Your task to perform on an android device: open app "Indeed Job Search" Image 0: 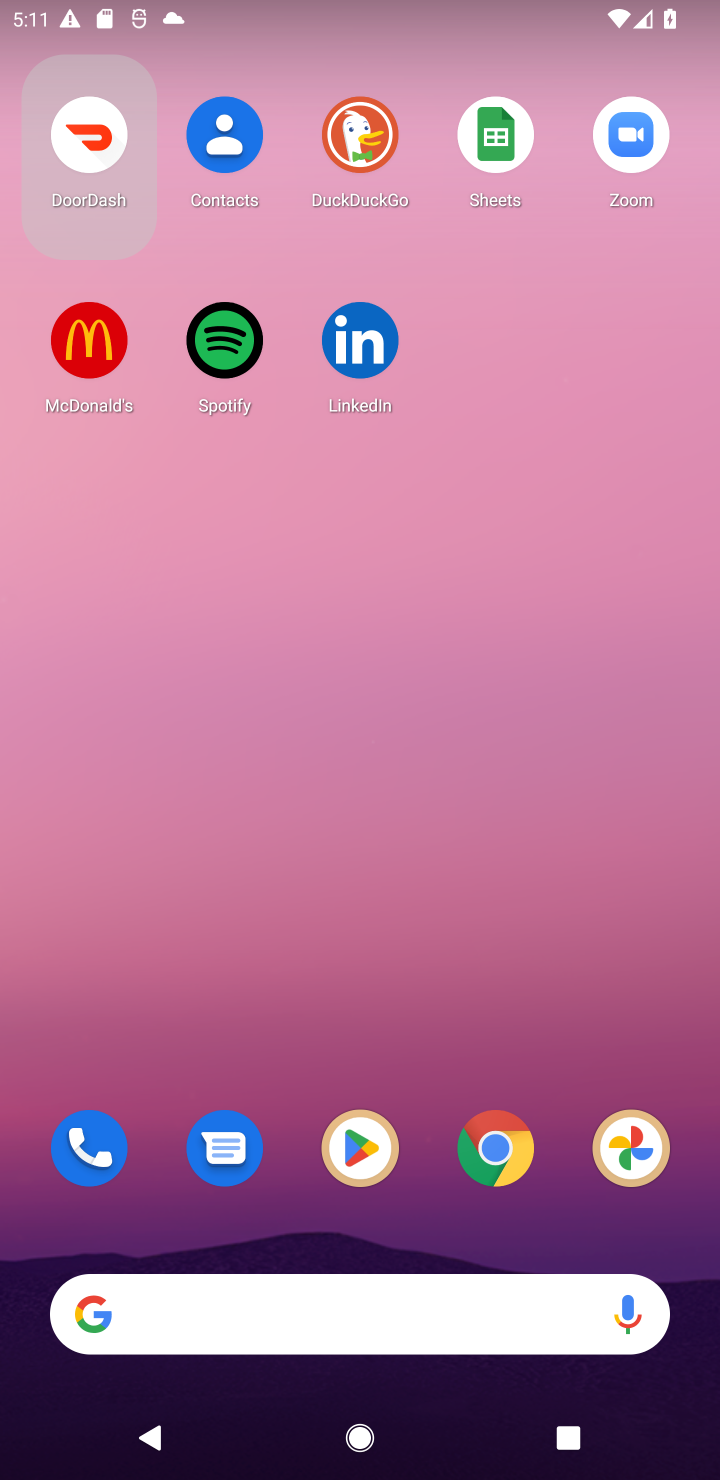
Step 0: drag from (325, 1078) to (337, 33)
Your task to perform on an android device: open app "Indeed Job Search" Image 1: 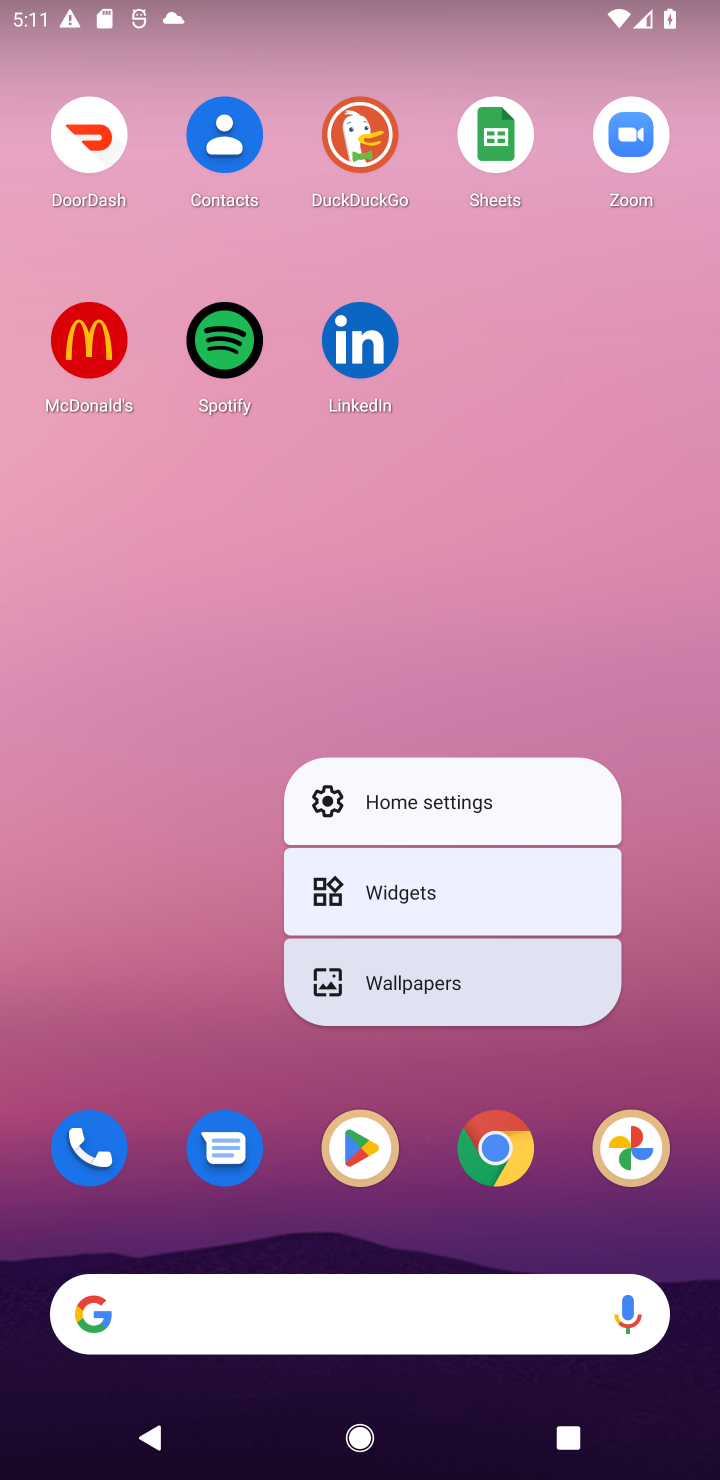
Step 1: click (126, 850)
Your task to perform on an android device: open app "Indeed Job Search" Image 2: 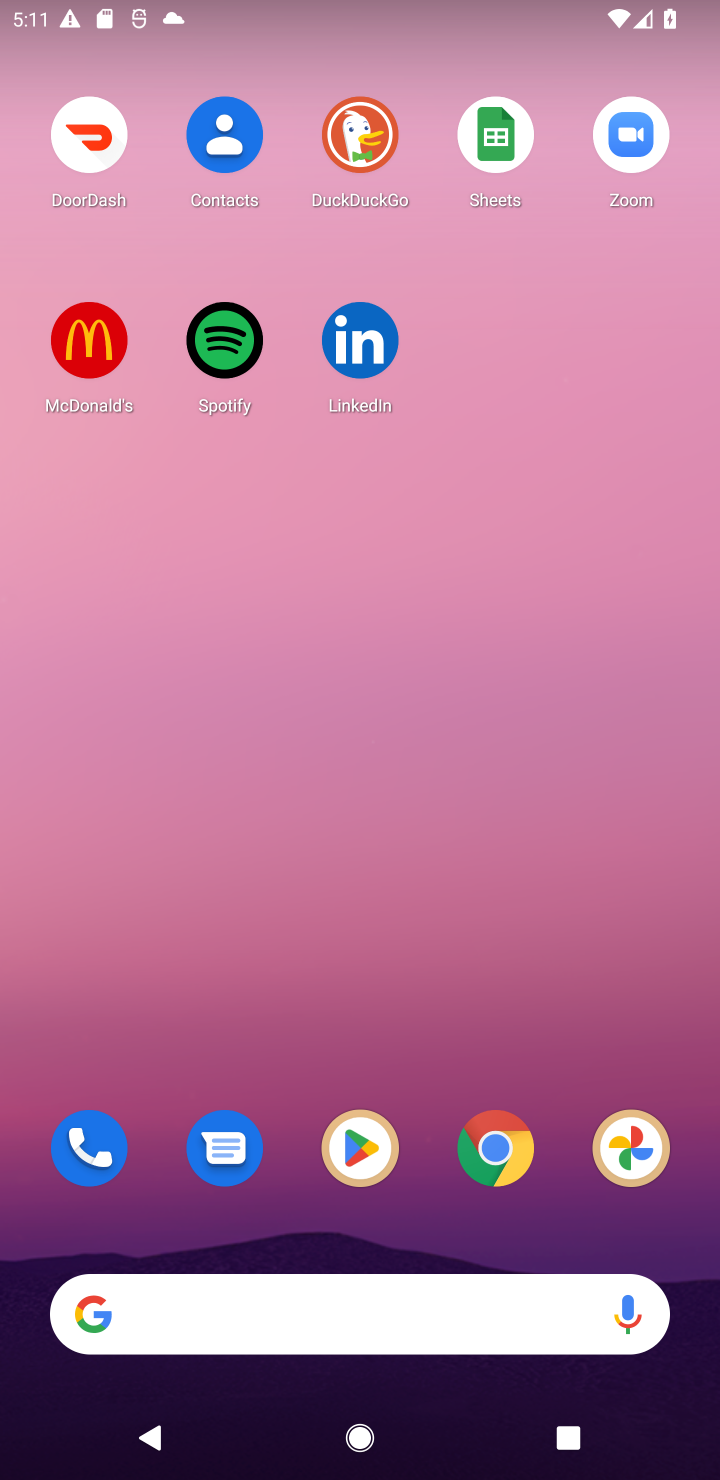
Step 2: drag from (314, 1180) to (162, 6)
Your task to perform on an android device: open app "Indeed Job Search" Image 3: 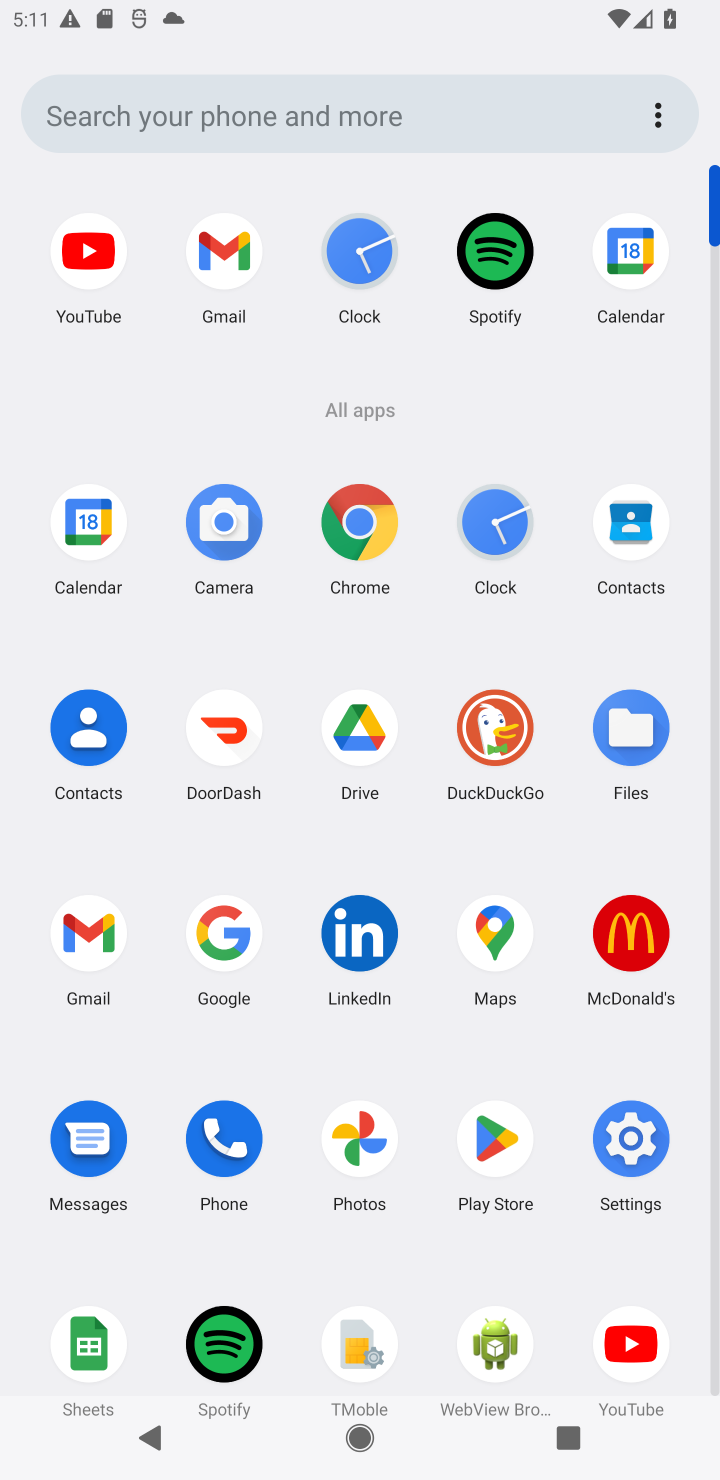
Step 3: click (483, 1129)
Your task to perform on an android device: open app "Indeed Job Search" Image 4: 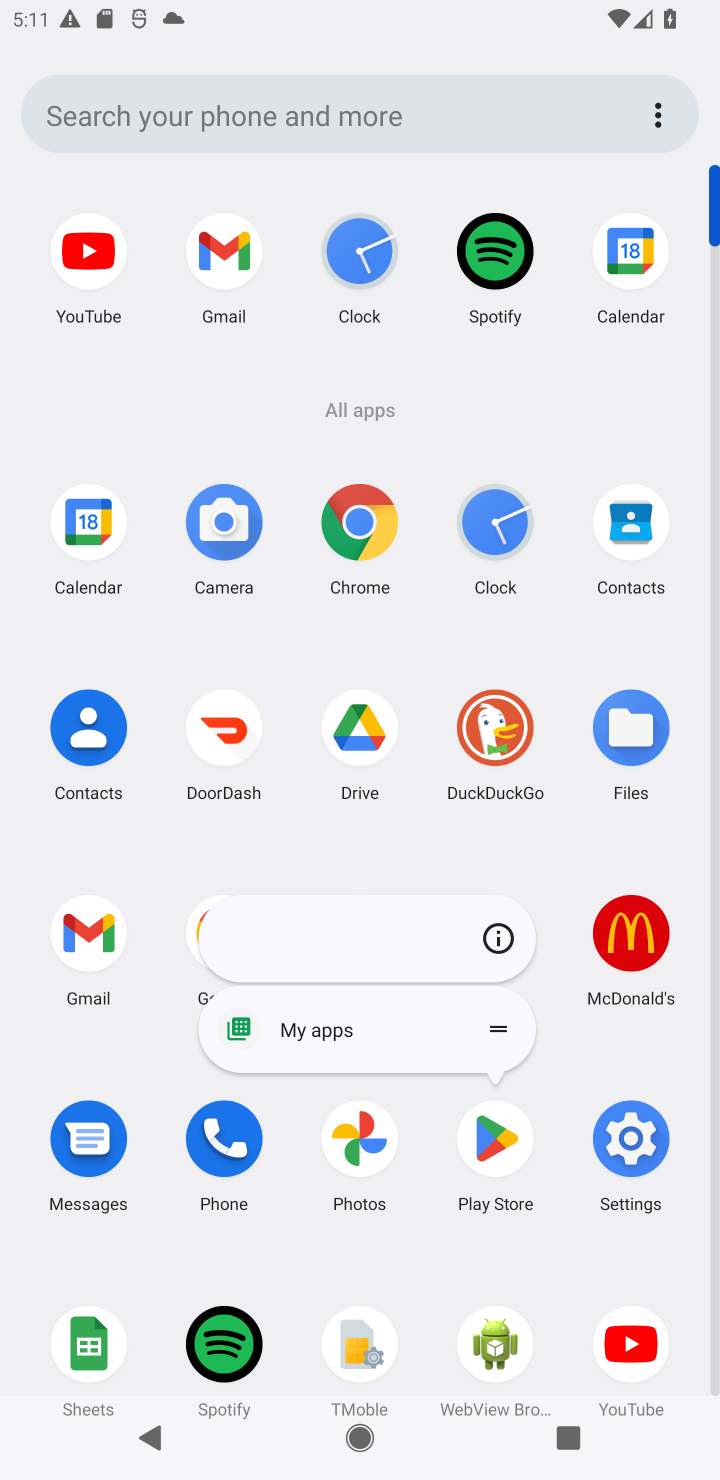
Step 4: click (500, 1158)
Your task to perform on an android device: open app "Indeed Job Search" Image 5: 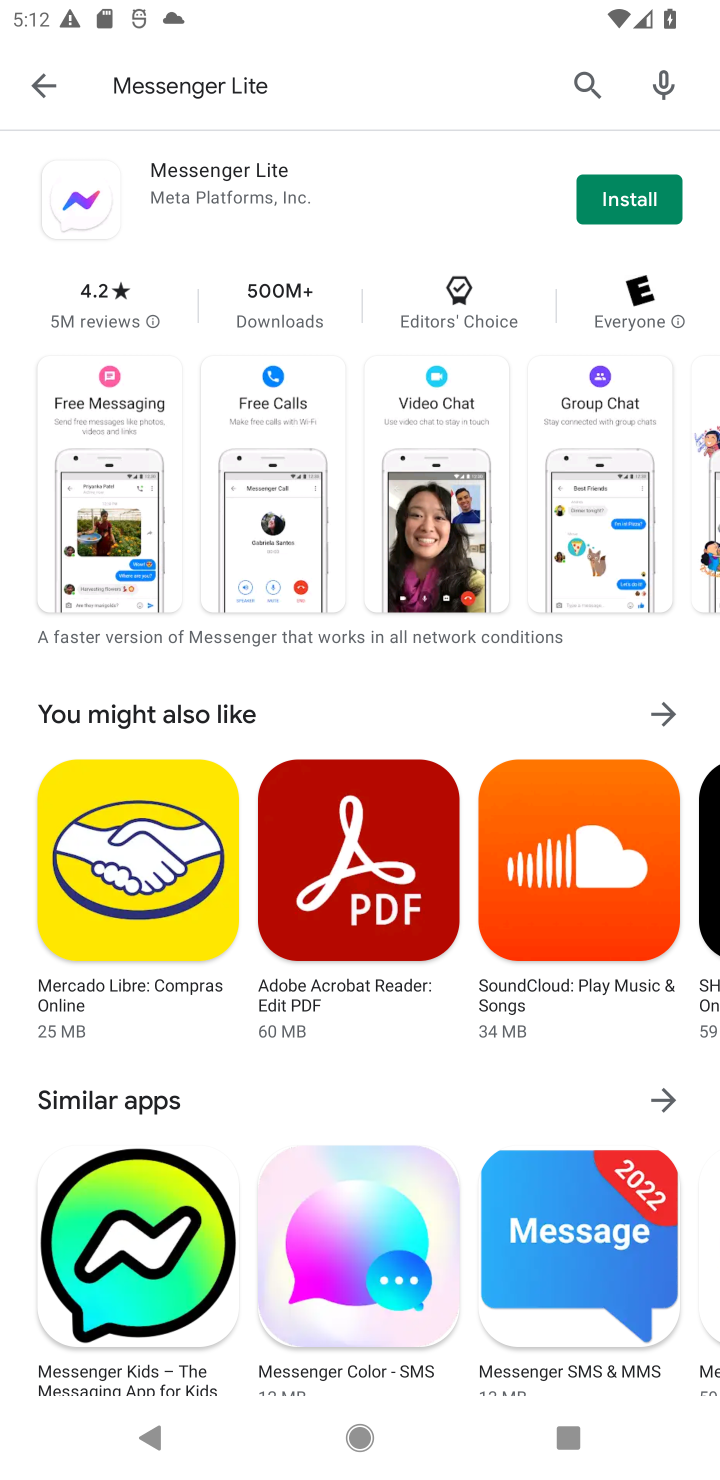
Step 5: click (46, 92)
Your task to perform on an android device: open app "Indeed Job Search" Image 6: 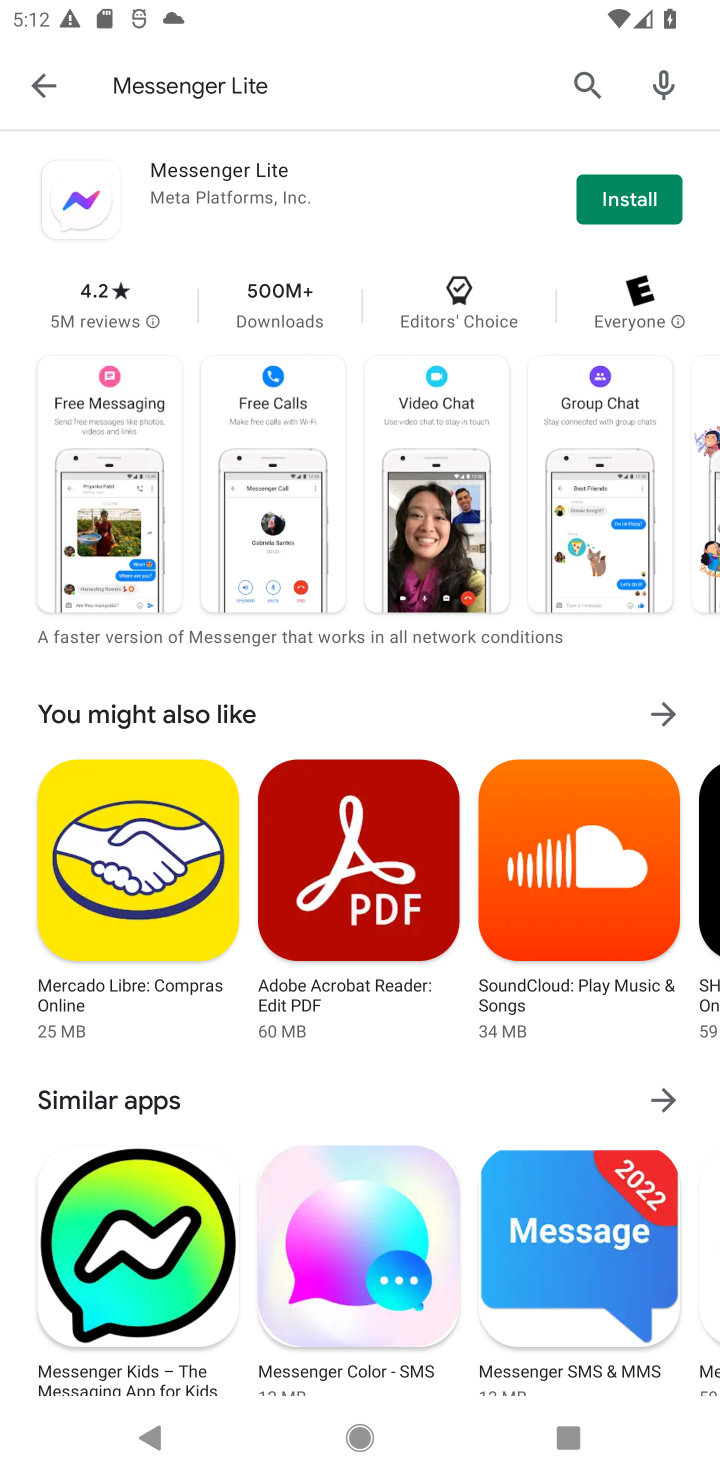
Step 6: press back button
Your task to perform on an android device: open app "Indeed Job Search" Image 7: 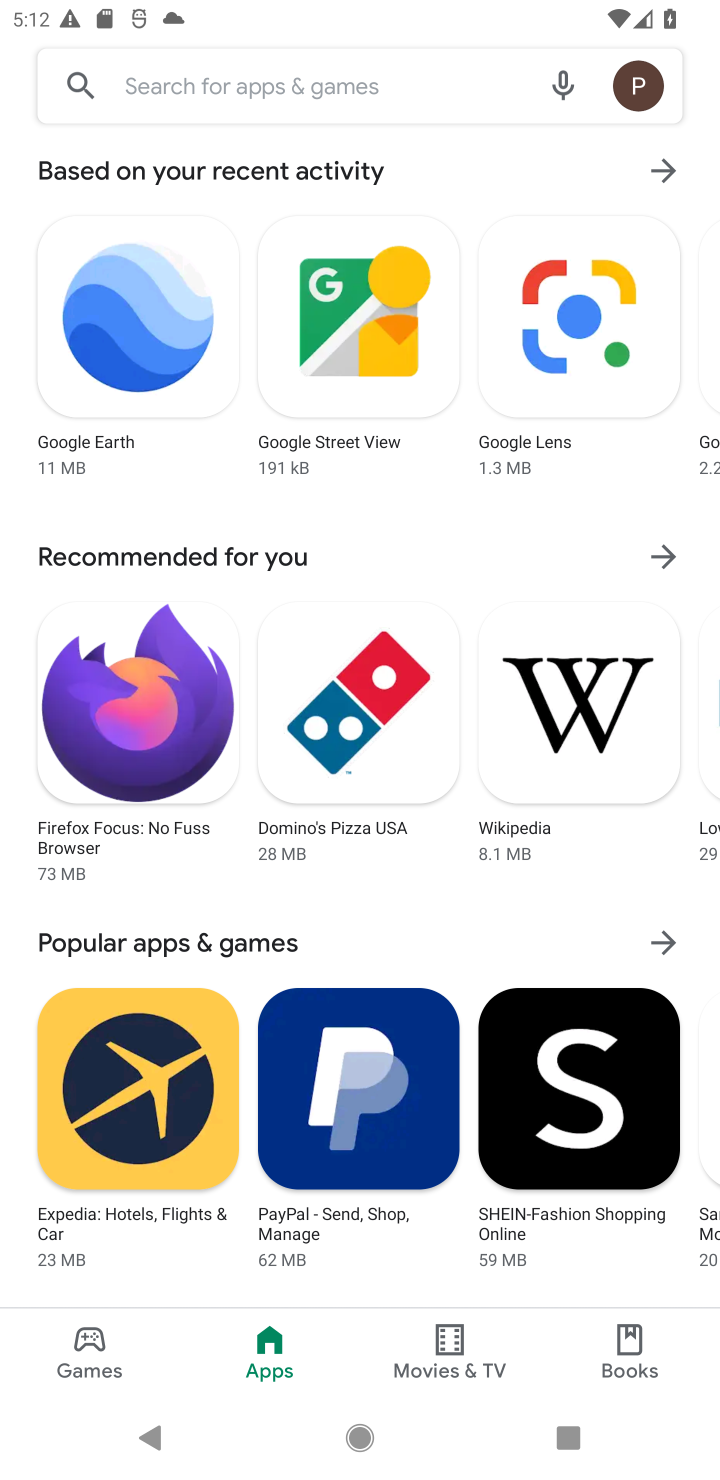
Step 7: click (243, 94)
Your task to perform on an android device: open app "Indeed Job Search" Image 8: 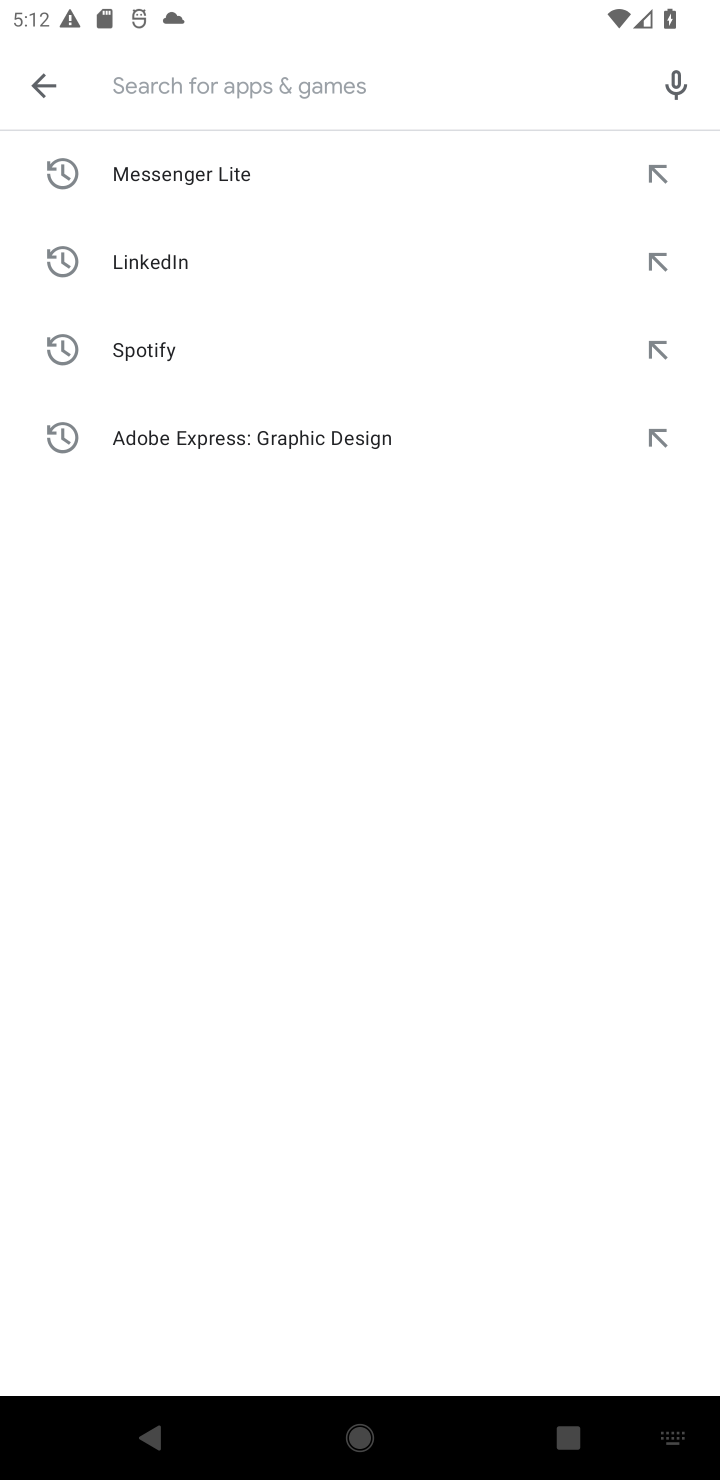
Step 8: type "Indeed Job Search"
Your task to perform on an android device: open app "Indeed Job Search" Image 9: 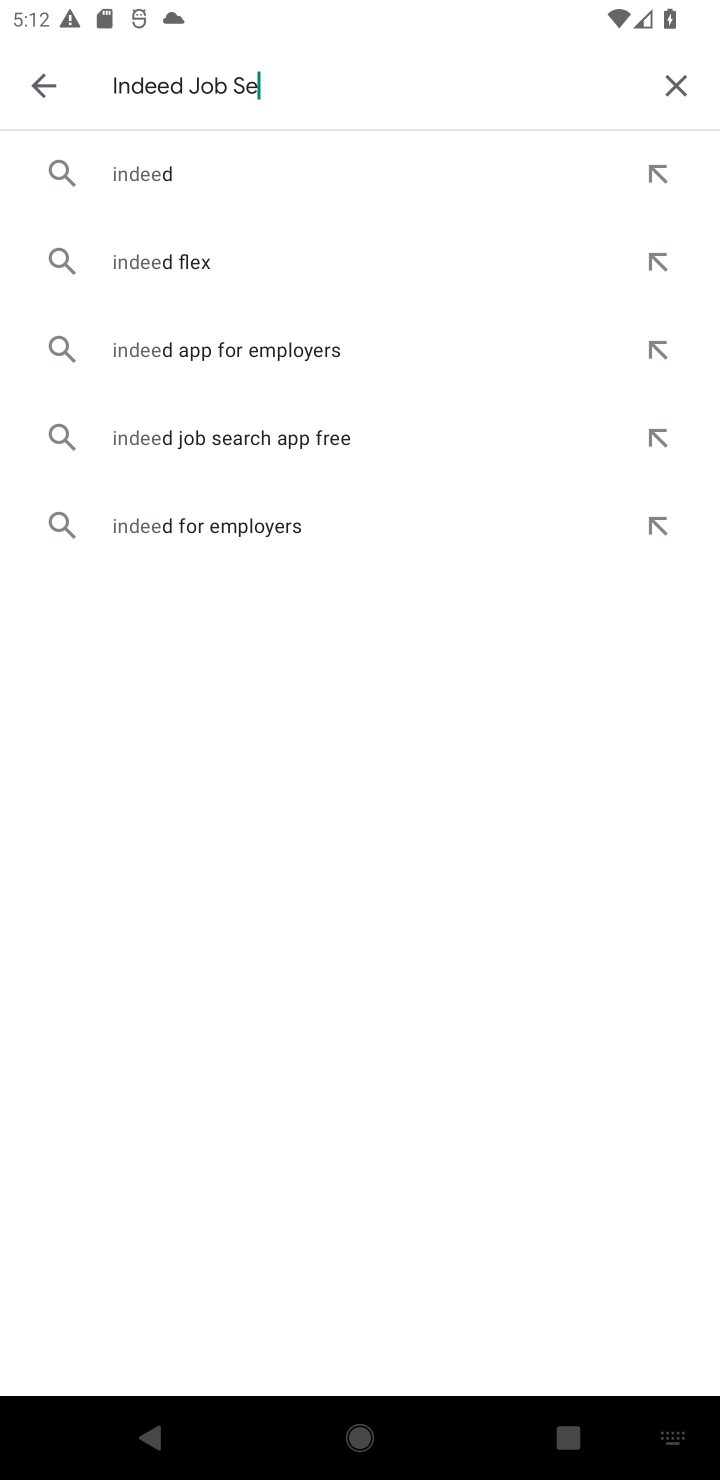
Step 9: press enter
Your task to perform on an android device: open app "Indeed Job Search" Image 10: 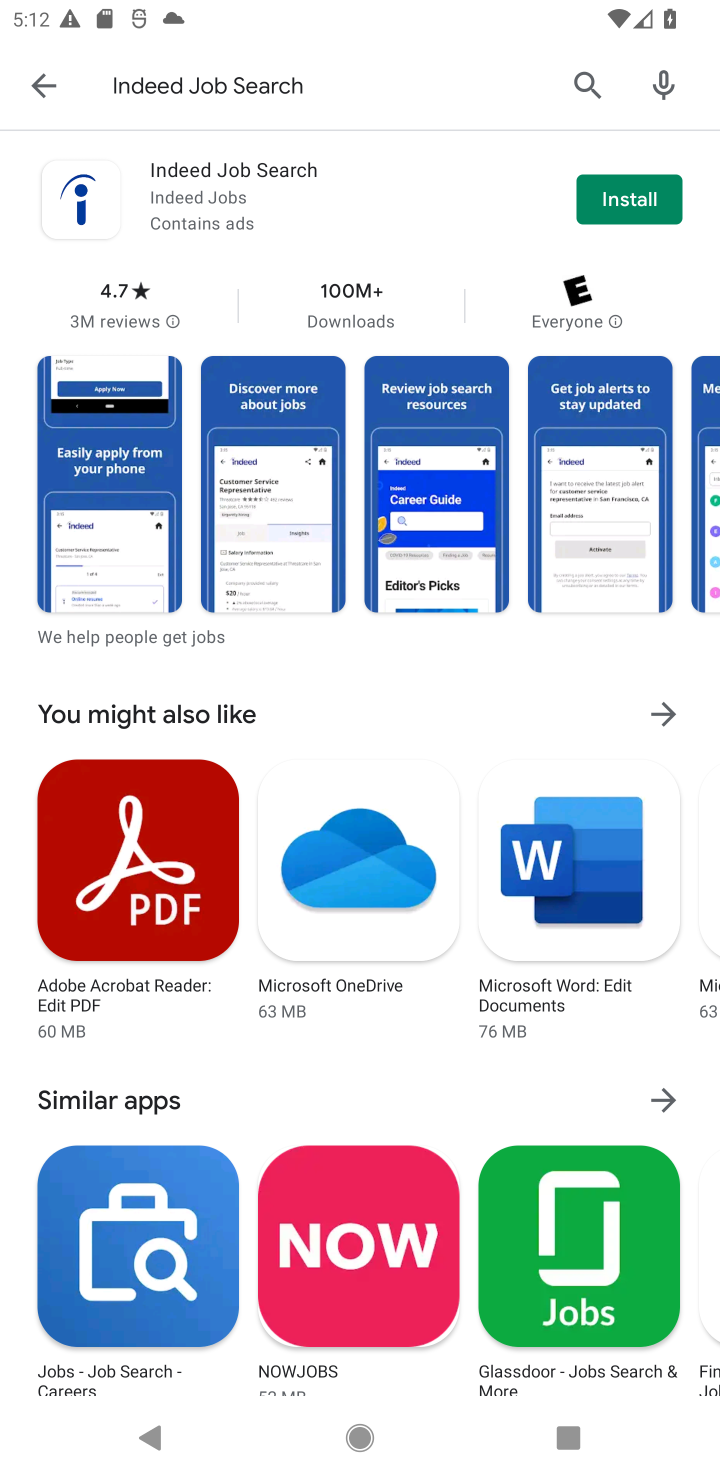
Step 10: task complete